Your task to perform on an android device: Open the calendar app, open the side menu, and click the "Day" option Image 0: 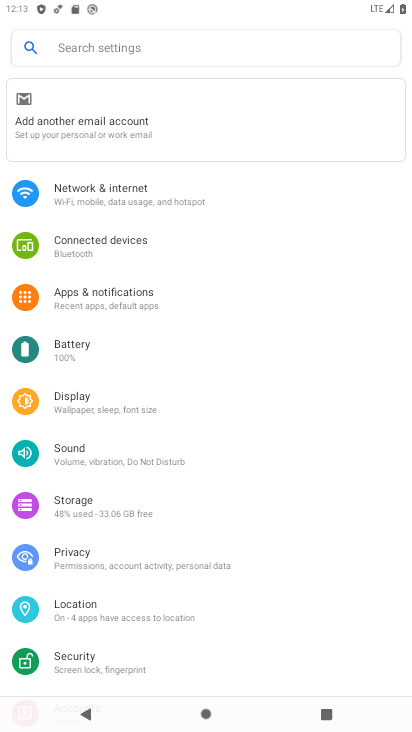
Step 0: press home button
Your task to perform on an android device: Open the calendar app, open the side menu, and click the "Day" option Image 1: 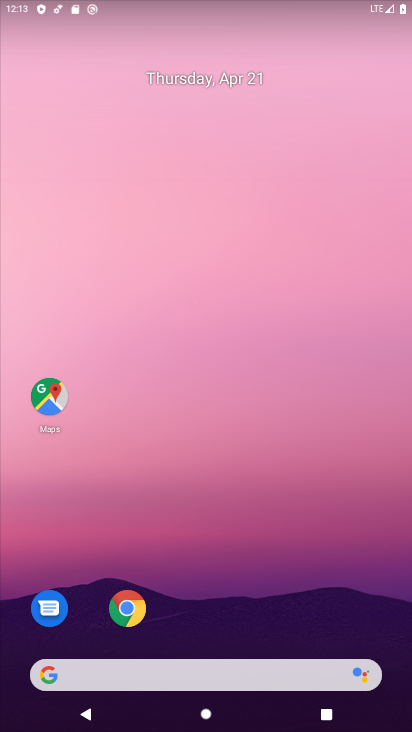
Step 1: drag from (227, 638) to (217, 102)
Your task to perform on an android device: Open the calendar app, open the side menu, and click the "Day" option Image 2: 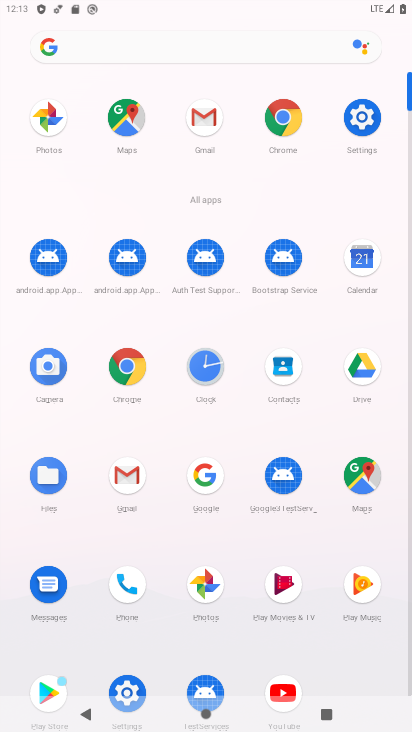
Step 2: click (352, 258)
Your task to perform on an android device: Open the calendar app, open the side menu, and click the "Day" option Image 3: 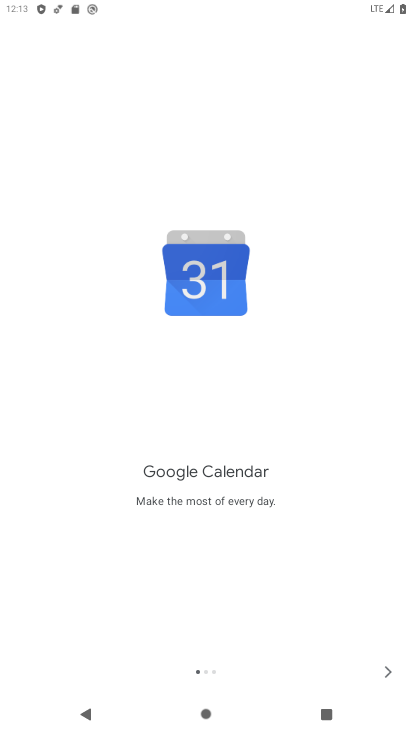
Step 3: click (389, 663)
Your task to perform on an android device: Open the calendar app, open the side menu, and click the "Day" option Image 4: 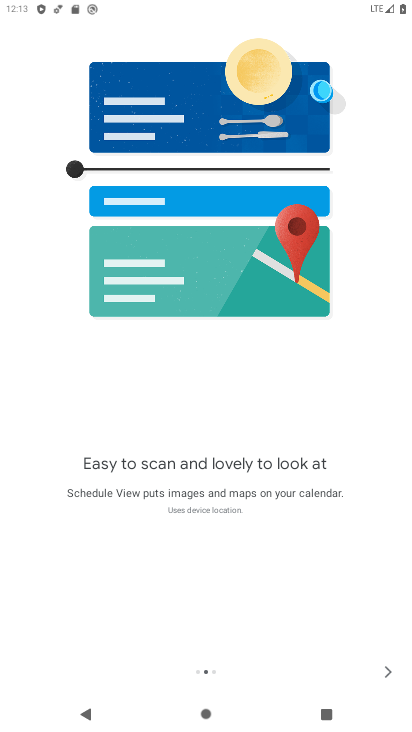
Step 4: click (383, 672)
Your task to perform on an android device: Open the calendar app, open the side menu, and click the "Day" option Image 5: 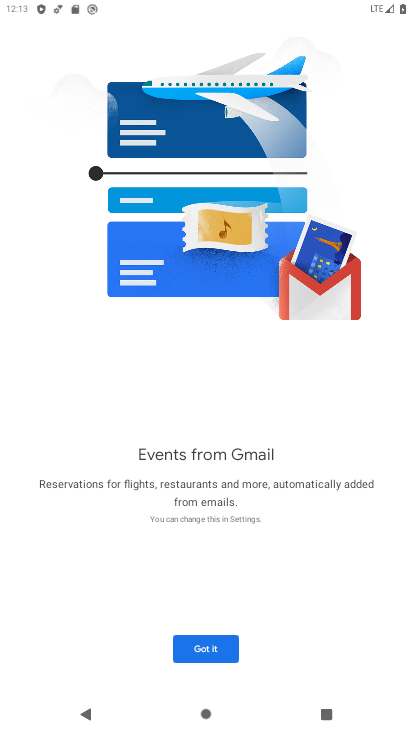
Step 5: click (223, 651)
Your task to perform on an android device: Open the calendar app, open the side menu, and click the "Day" option Image 6: 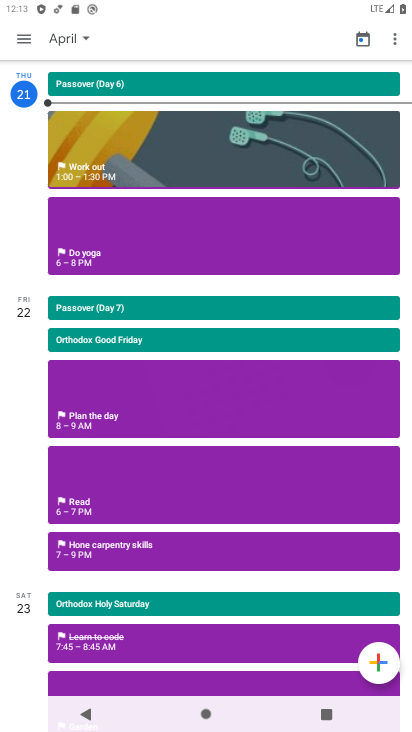
Step 6: click (23, 44)
Your task to perform on an android device: Open the calendar app, open the side menu, and click the "Day" option Image 7: 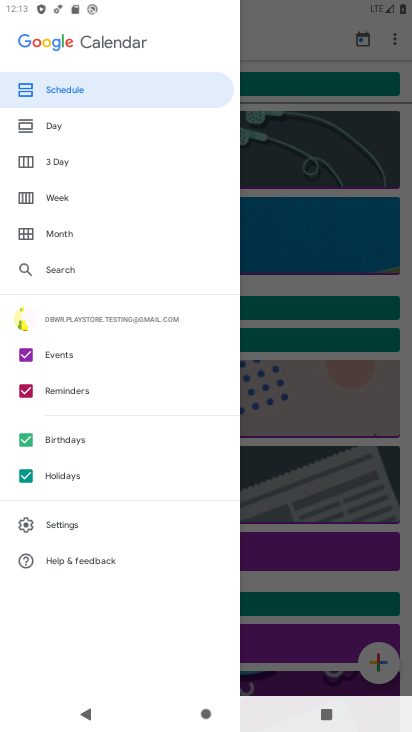
Step 7: click (57, 123)
Your task to perform on an android device: Open the calendar app, open the side menu, and click the "Day" option Image 8: 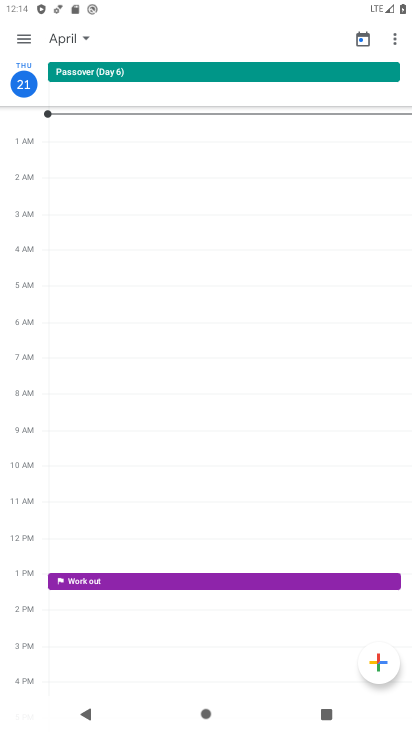
Step 8: task complete